Your task to perform on an android device: What's on my calendar today? Image 0: 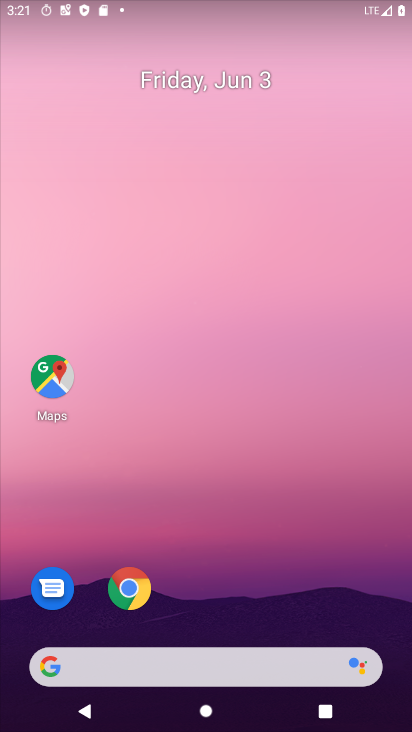
Step 0: drag from (13, 617) to (295, 212)
Your task to perform on an android device: What's on my calendar today? Image 1: 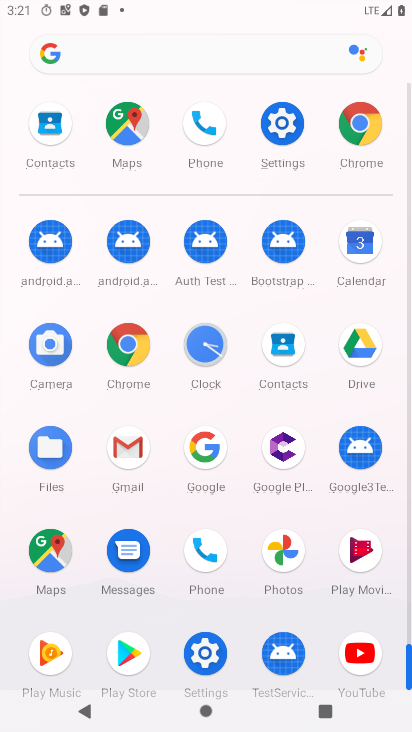
Step 1: click (358, 239)
Your task to perform on an android device: What's on my calendar today? Image 2: 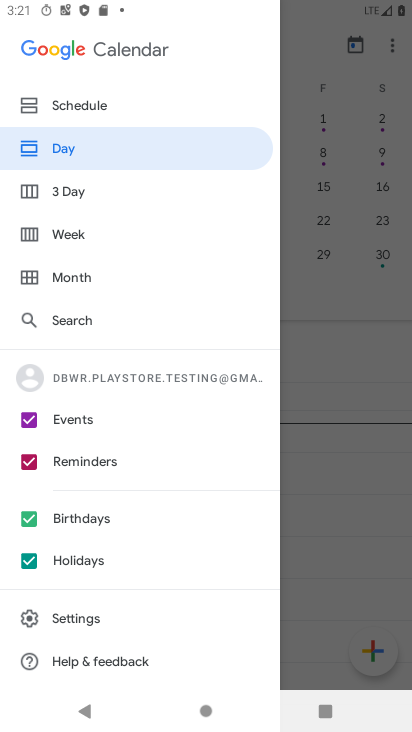
Step 2: click (309, 420)
Your task to perform on an android device: What's on my calendar today? Image 3: 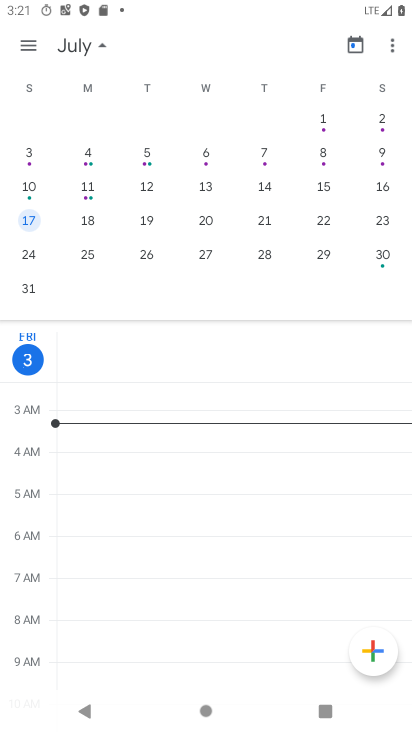
Step 3: click (89, 40)
Your task to perform on an android device: What's on my calendar today? Image 4: 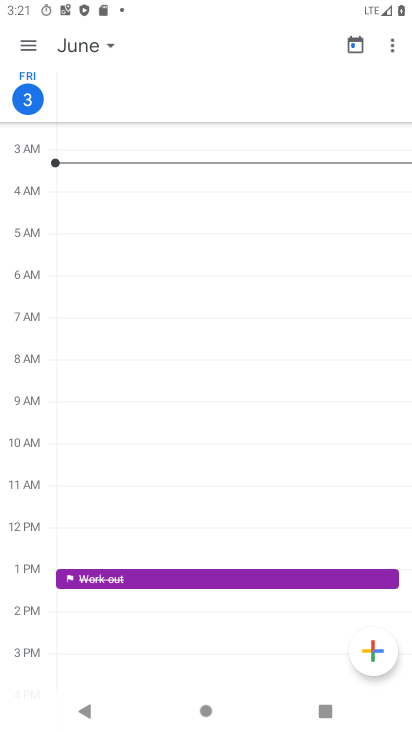
Step 4: click (102, 44)
Your task to perform on an android device: What's on my calendar today? Image 5: 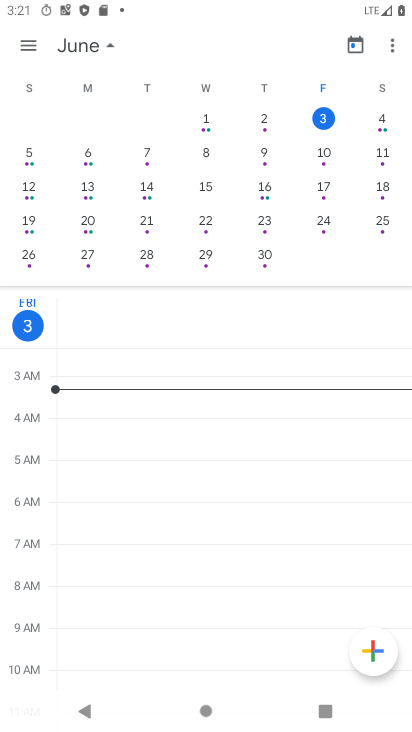
Step 5: click (321, 118)
Your task to perform on an android device: What's on my calendar today? Image 6: 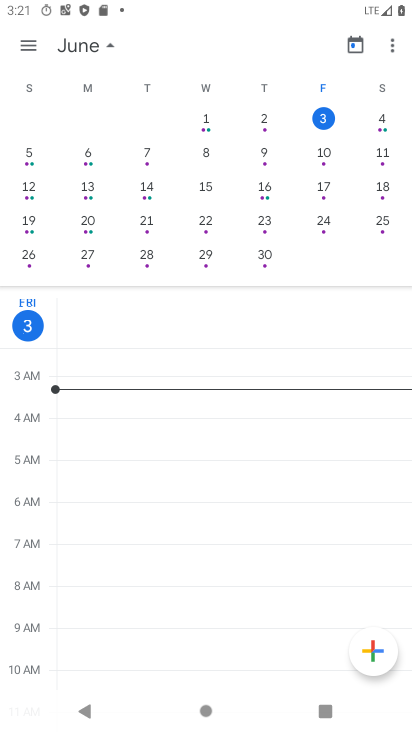
Step 6: task complete